Your task to perform on an android device: turn off improve location accuracy Image 0: 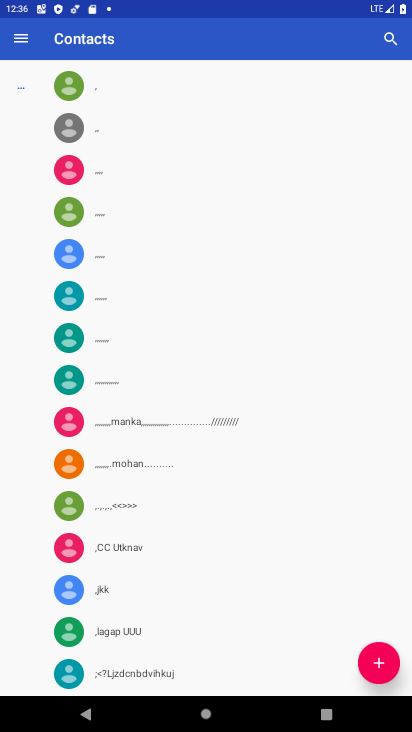
Step 0: press home button
Your task to perform on an android device: turn off improve location accuracy Image 1: 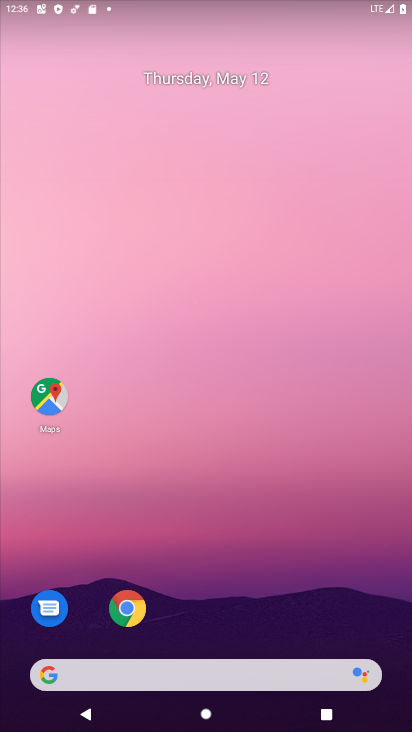
Step 1: drag from (235, 604) to (243, 4)
Your task to perform on an android device: turn off improve location accuracy Image 2: 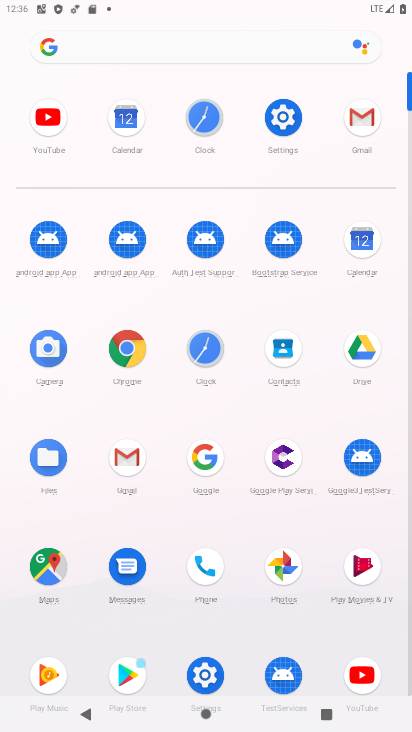
Step 2: click (284, 120)
Your task to perform on an android device: turn off improve location accuracy Image 3: 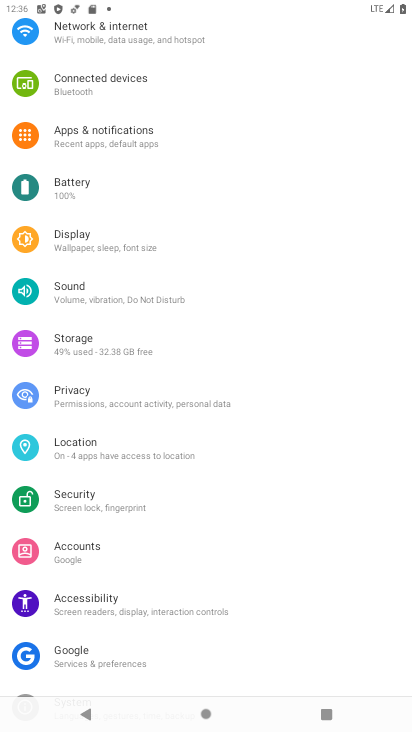
Step 3: click (77, 443)
Your task to perform on an android device: turn off improve location accuracy Image 4: 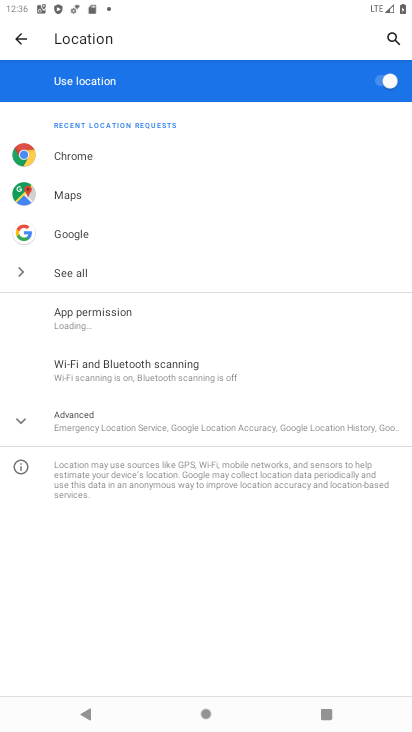
Step 4: click (23, 426)
Your task to perform on an android device: turn off improve location accuracy Image 5: 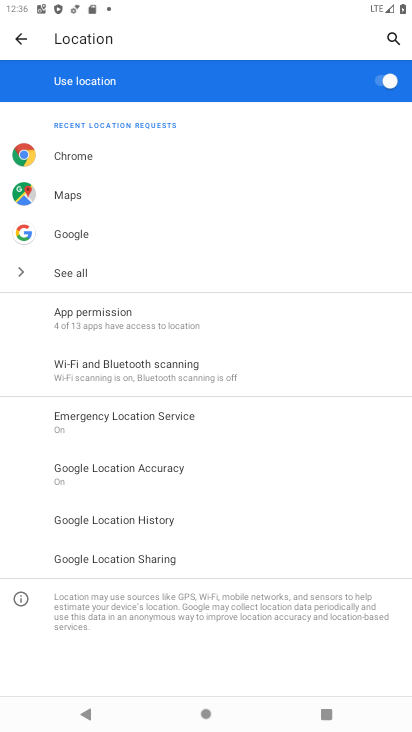
Step 5: click (75, 470)
Your task to perform on an android device: turn off improve location accuracy Image 6: 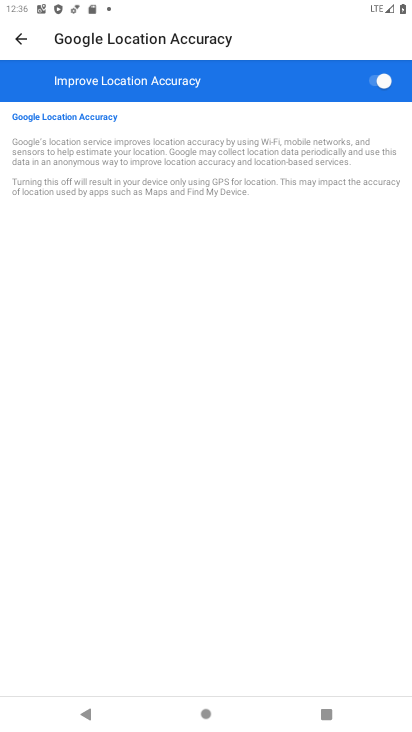
Step 6: click (387, 80)
Your task to perform on an android device: turn off improve location accuracy Image 7: 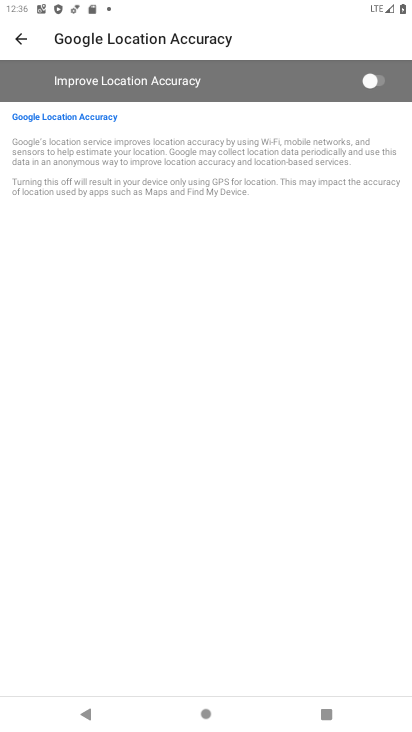
Step 7: task complete